Your task to perform on an android device: turn on sleep mode Image 0: 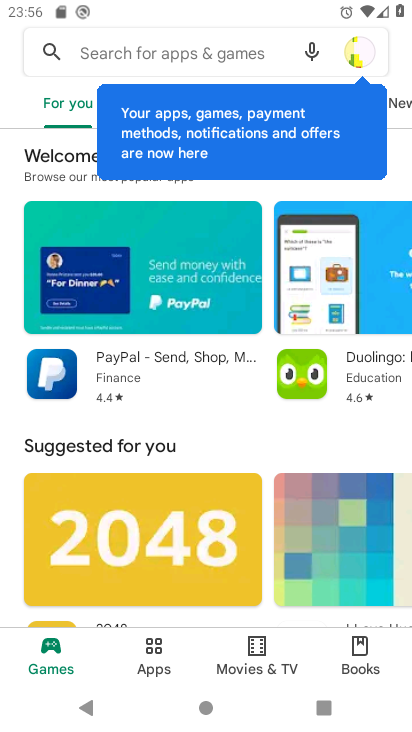
Step 0: drag from (261, 614) to (307, 275)
Your task to perform on an android device: turn on sleep mode Image 1: 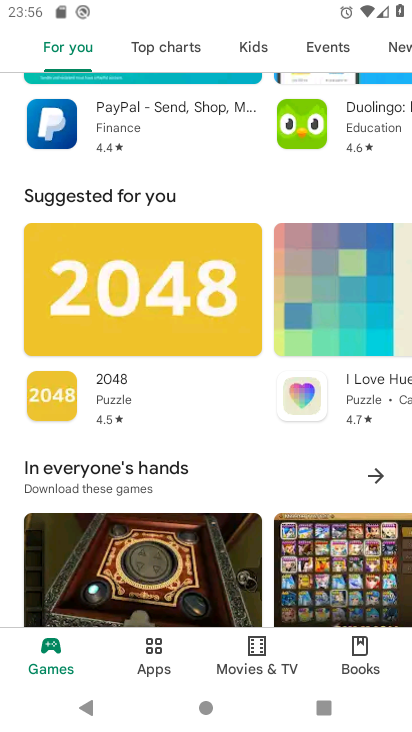
Step 1: drag from (268, 575) to (344, 291)
Your task to perform on an android device: turn on sleep mode Image 2: 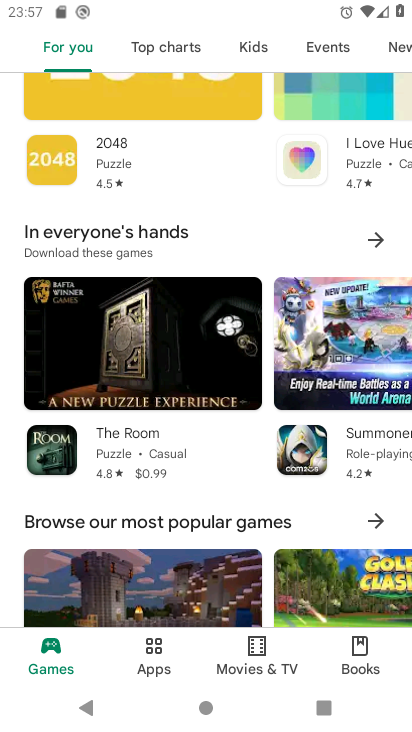
Step 2: drag from (231, 278) to (324, 566)
Your task to perform on an android device: turn on sleep mode Image 3: 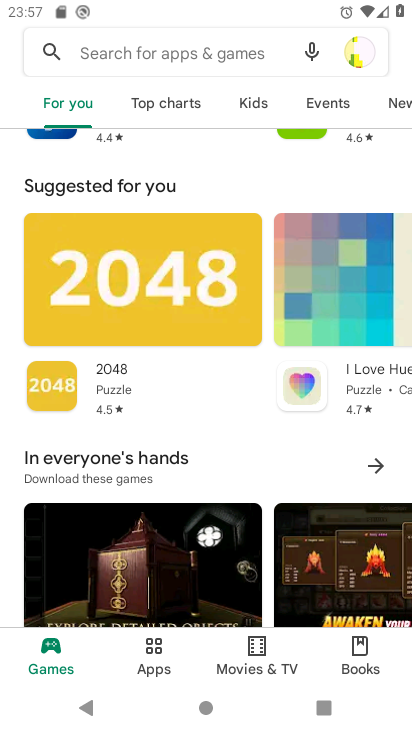
Step 3: drag from (240, 581) to (326, 286)
Your task to perform on an android device: turn on sleep mode Image 4: 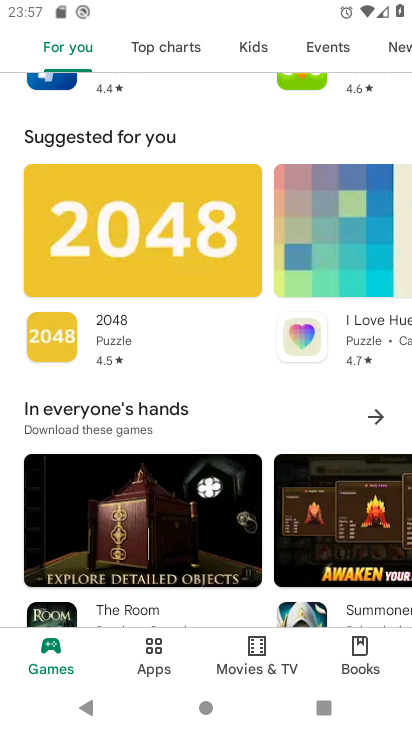
Step 4: drag from (257, 135) to (315, 530)
Your task to perform on an android device: turn on sleep mode Image 5: 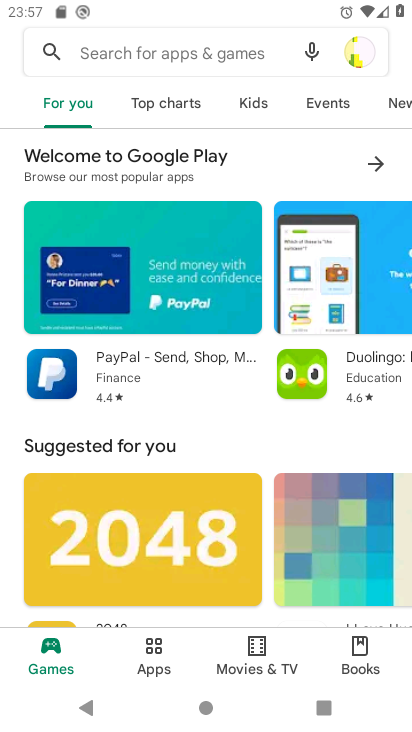
Step 5: press home button
Your task to perform on an android device: turn on sleep mode Image 6: 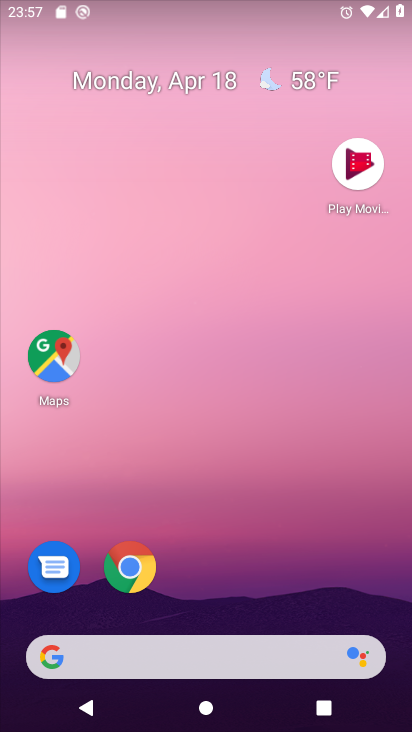
Step 6: drag from (213, 560) to (362, 33)
Your task to perform on an android device: turn on sleep mode Image 7: 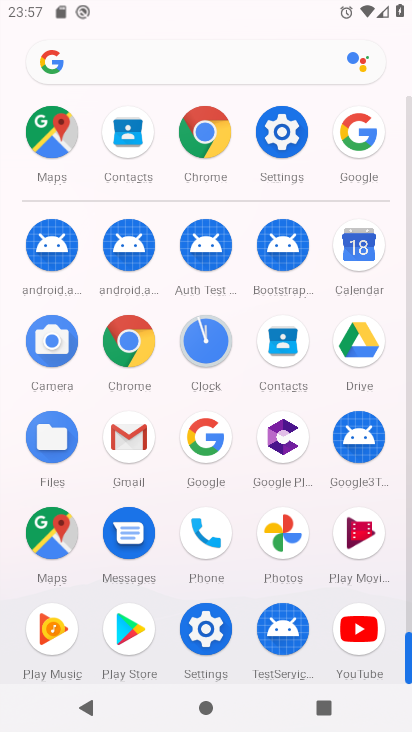
Step 7: click (203, 645)
Your task to perform on an android device: turn on sleep mode Image 8: 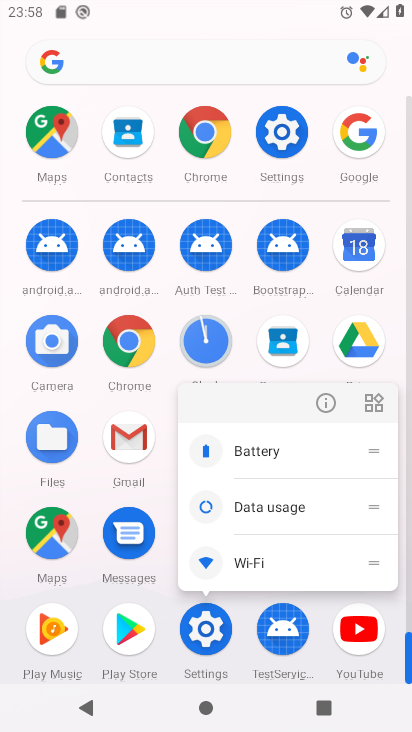
Step 8: click (325, 404)
Your task to perform on an android device: turn on sleep mode Image 9: 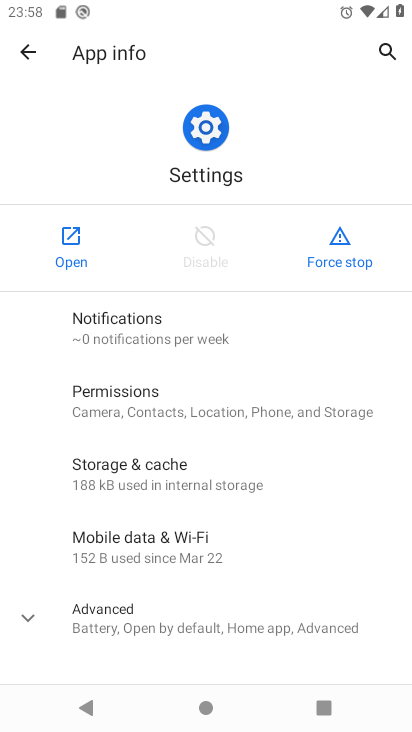
Step 9: click (82, 237)
Your task to perform on an android device: turn on sleep mode Image 10: 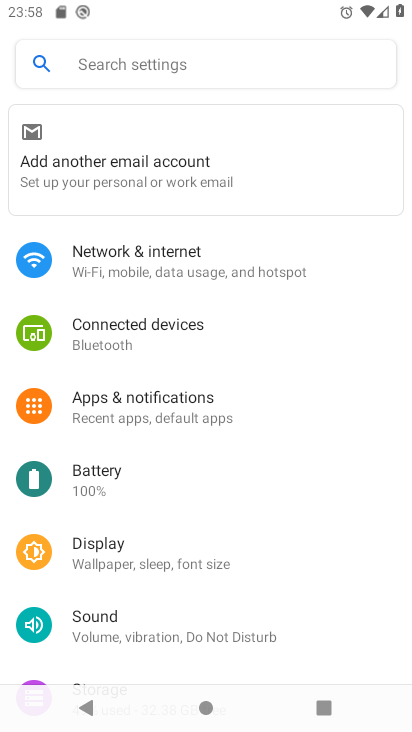
Step 10: click (155, 571)
Your task to perform on an android device: turn on sleep mode Image 11: 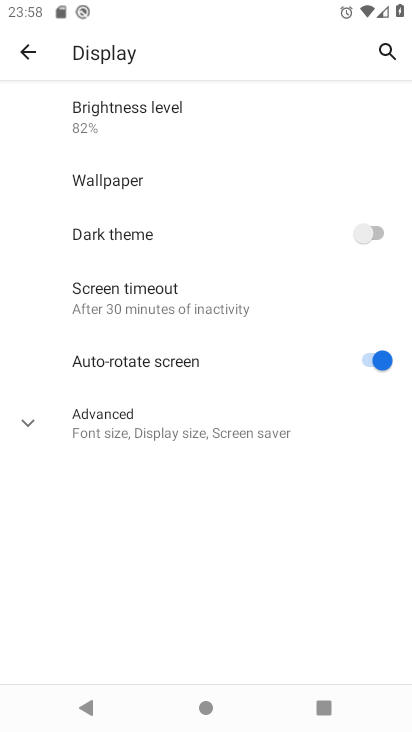
Step 11: click (223, 312)
Your task to perform on an android device: turn on sleep mode Image 12: 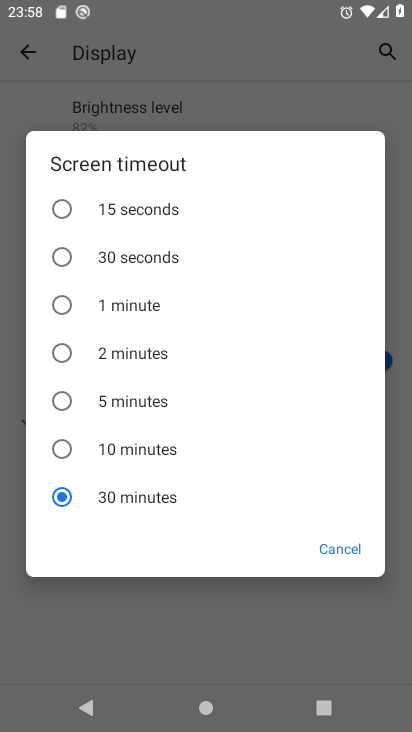
Step 12: task complete